Your task to perform on an android device: turn off sleep mode Image 0: 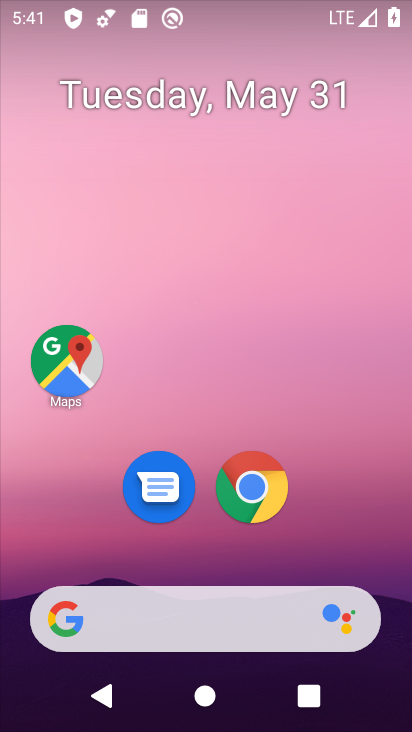
Step 0: drag from (338, 511) to (256, 72)
Your task to perform on an android device: turn off sleep mode Image 1: 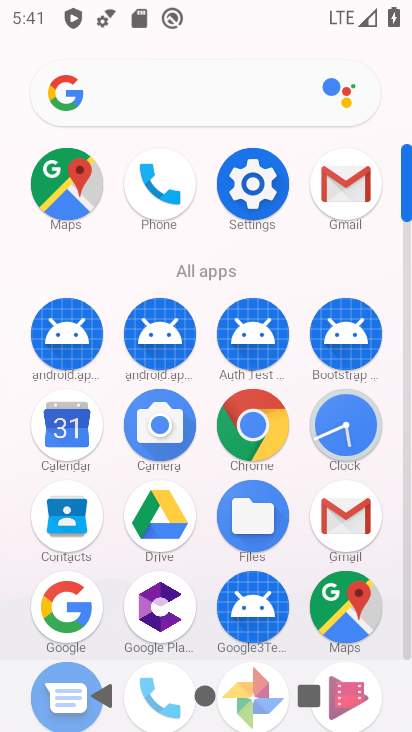
Step 1: click (249, 181)
Your task to perform on an android device: turn off sleep mode Image 2: 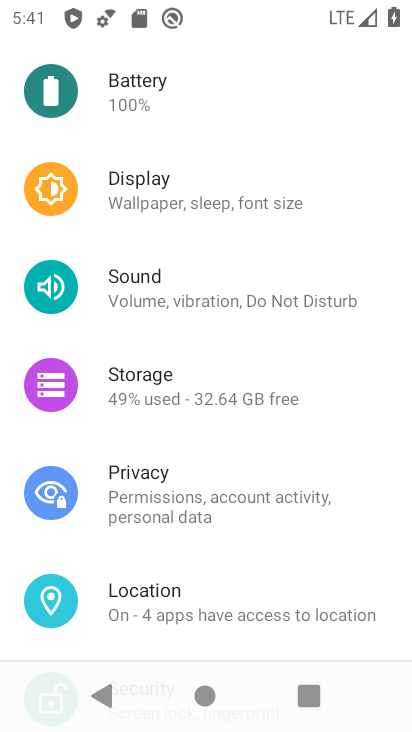
Step 2: click (170, 194)
Your task to perform on an android device: turn off sleep mode Image 3: 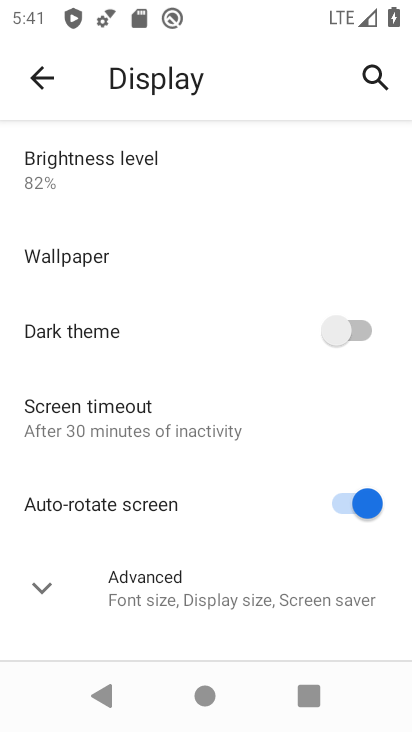
Step 3: task complete